Your task to perform on an android device: Open the stopwatch Image 0: 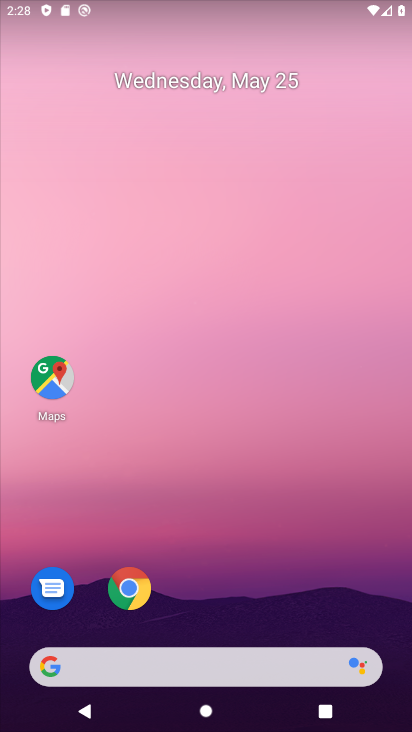
Step 0: press home button
Your task to perform on an android device: Open the stopwatch Image 1: 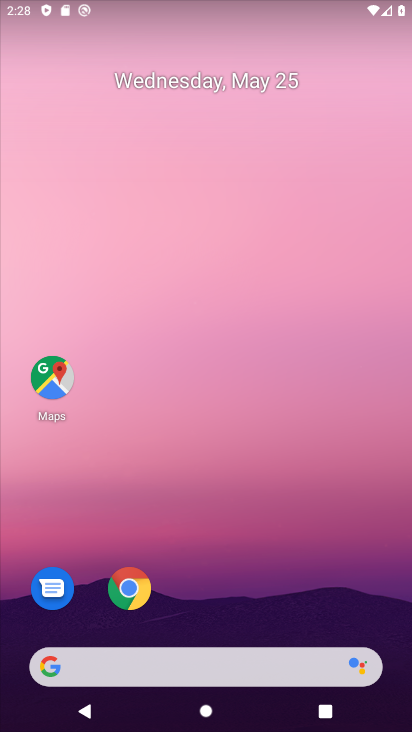
Step 1: drag from (338, 624) to (317, 260)
Your task to perform on an android device: Open the stopwatch Image 2: 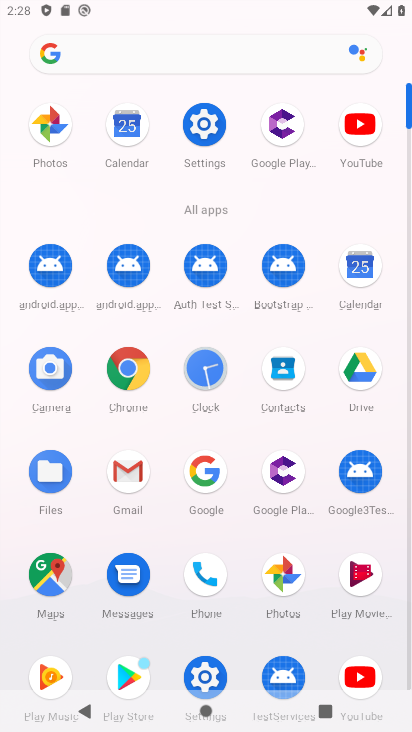
Step 2: click (196, 379)
Your task to perform on an android device: Open the stopwatch Image 3: 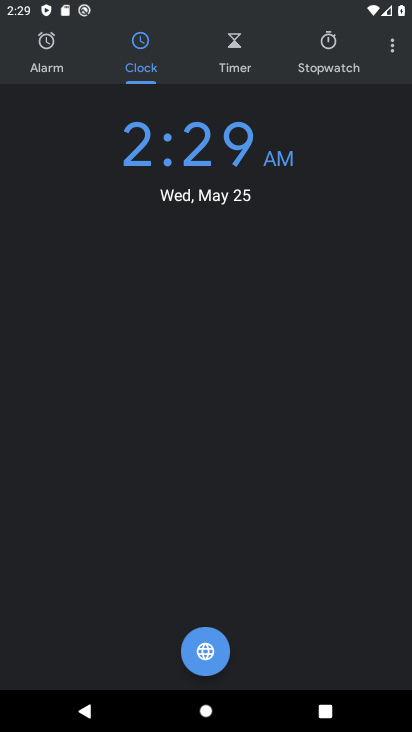
Step 3: click (322, 71)
Your task to perform on an android device: Open the stopwatch Image 4: 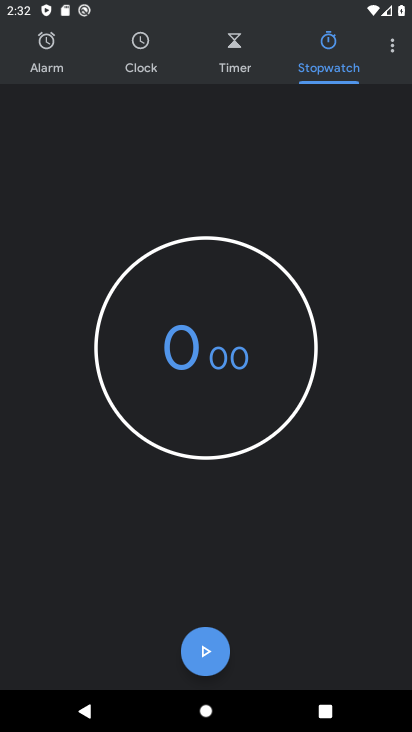
Step 4: task complete